Your task to perform on an android device: Do I have any events tomorrow? Image 0: 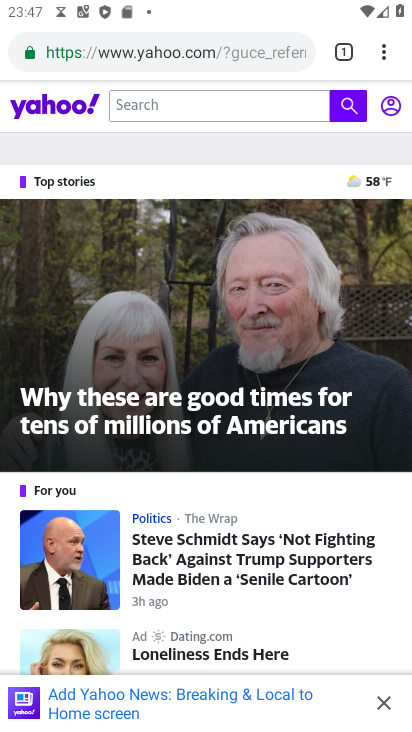
Step 0: press back button
Your task to perform on an android device: Do I have any events tomorrow? Image 1: 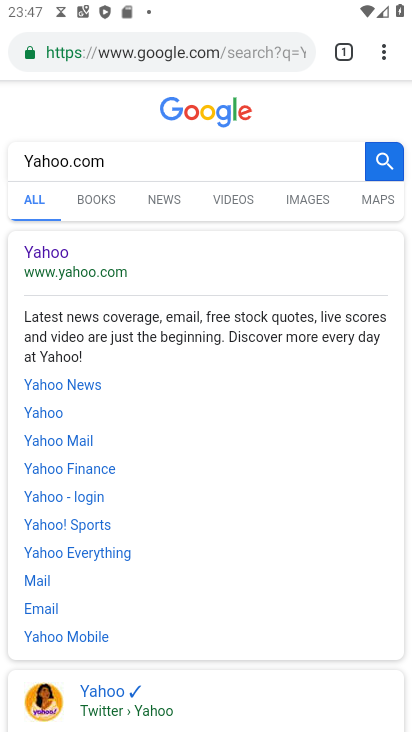
Step 1: press back button
Your task to perform on an android device: Do I have any events tomorrow? Image 2: 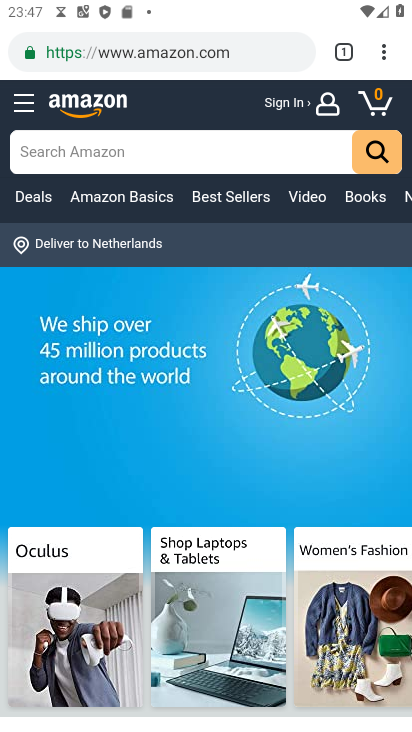
Step 2: press back button
Your task to perform on an android device: Do I have any events tomorrow? Image 3: 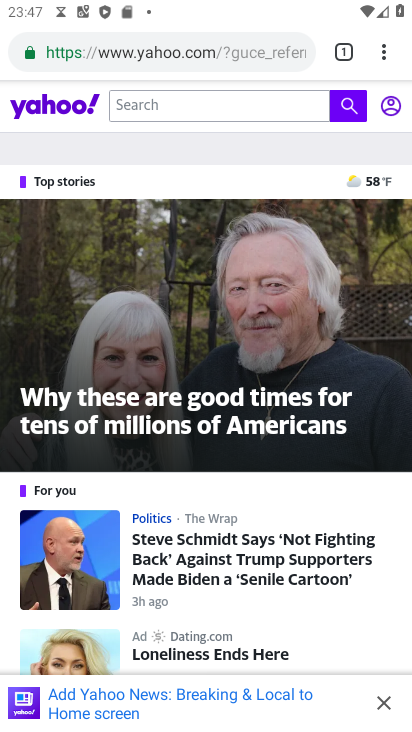
Step 3: press back button
Your task to perform on an android device: Do I have any events tomorrow? Image 4: 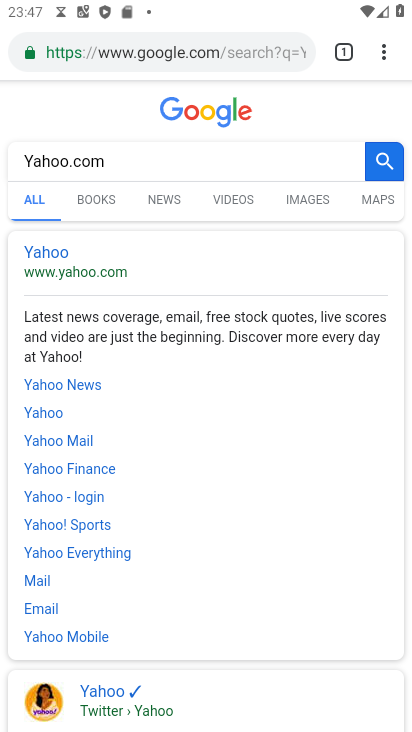
Step 4: press back button
Your task to perform on an android device: Do I have any events tomorrow? Image 5: 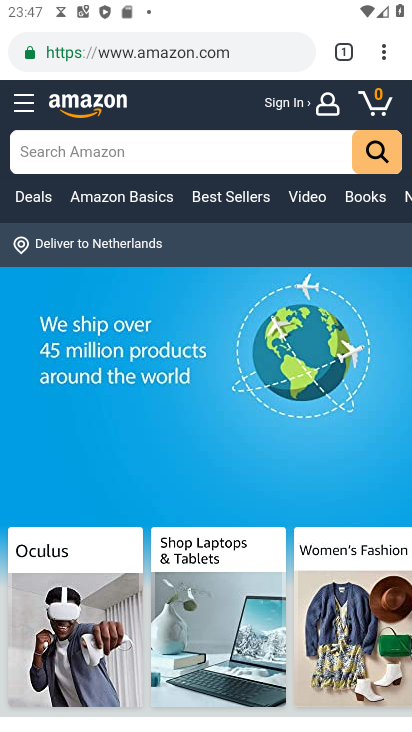
Step 5: press back button
Your task to perform on an android device: Do I have any events tomorrow? Image 6: 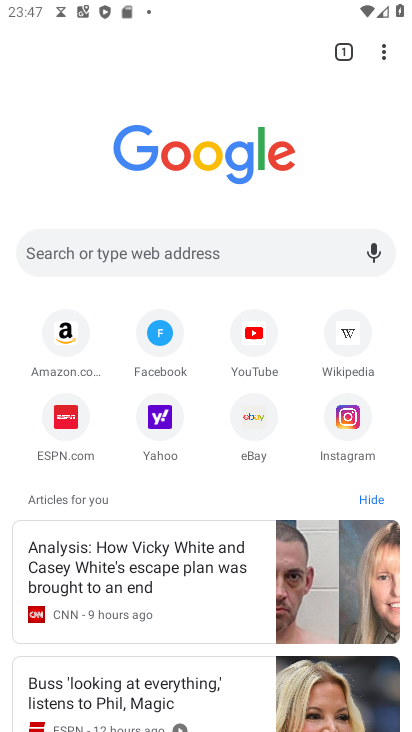
Step 6: press back button
Your task to perform on an android device: Do I have any events tomorrow? Image 7: 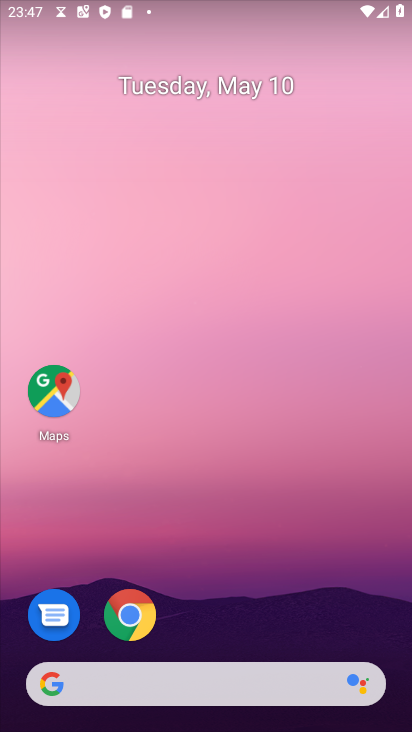
Step 7: drag from (236, 511) to (237, 84)
Your task to perform on an android device: Do I have any events tomorrow? Image 8: 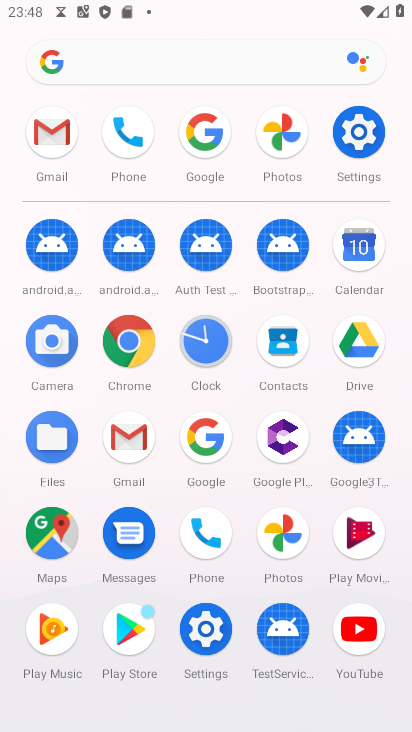
Step 8: click (362, 246)
Your task to perform on an android device: Do I have any events tomorrow? Image 9: 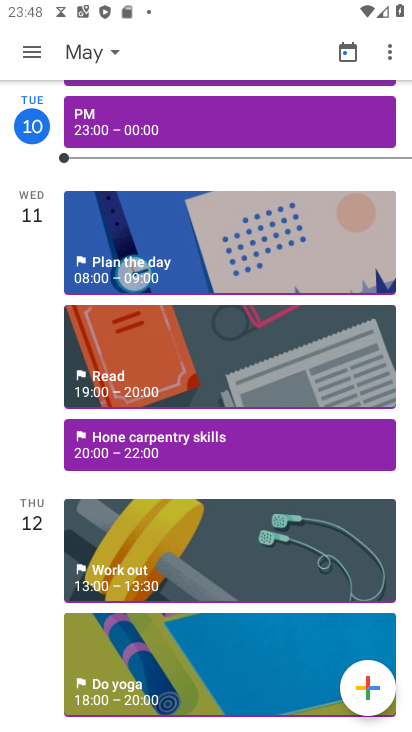
Step 9: click (113, 52)
Your task to perform on an android device: Do I have any events tomorrow? Image 10: 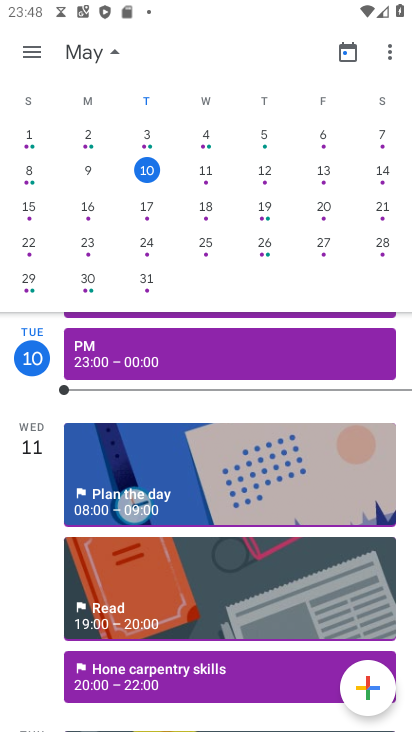
Step 10: click (207, 170)
Your task to perform on an android device: Do I have any events tomorrow? Image 11: 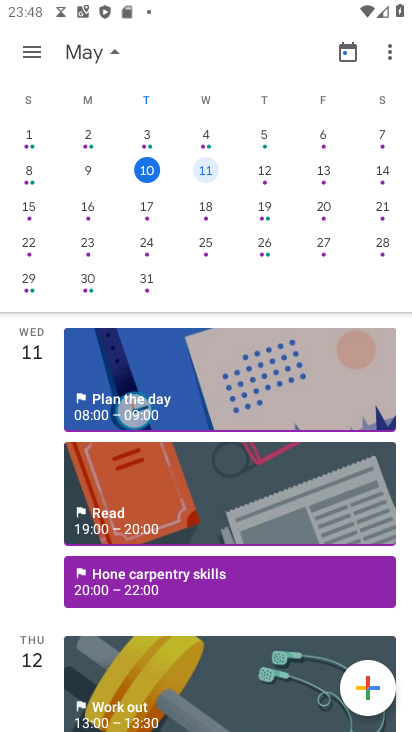
Step 11: task complete